Your task to perform on an android device: Open Android settings Image 0: 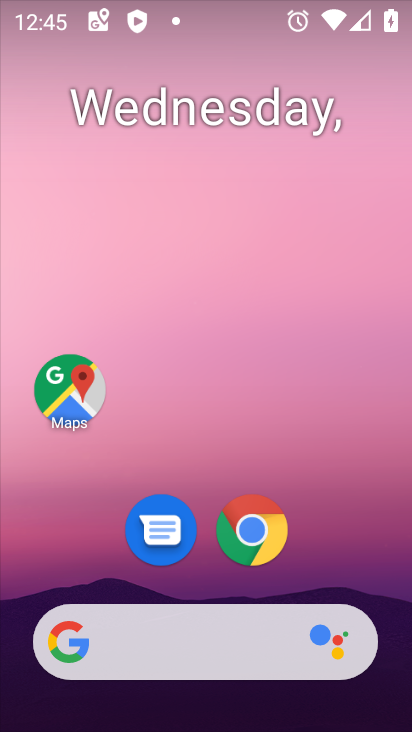
Step 0: drag from (239, 593) to (273, 149)
Your task to perform on an android device: Open Android settings Image 1: 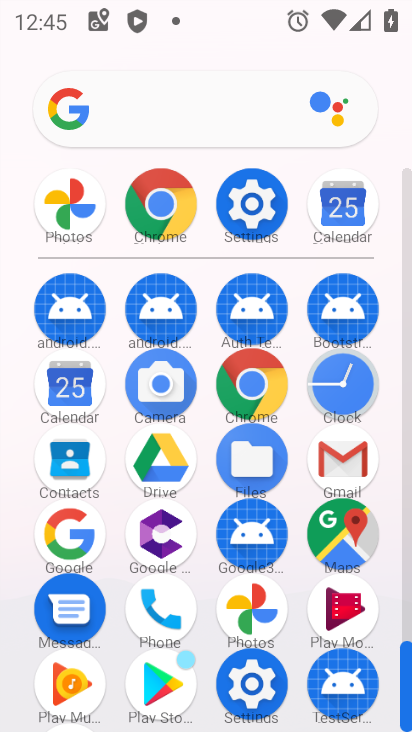
Step 1: click (244, 207)
Your task to perform on an android device: Open Android settings Image 2: 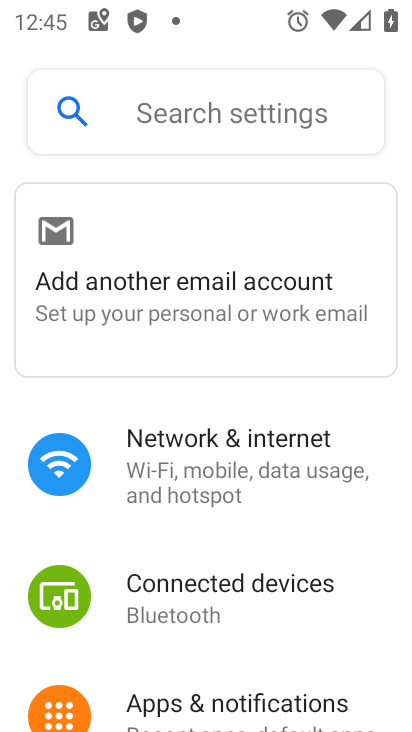
Step 2: drag from (236, 609) to (215, 166)
Your task to perform on an android device: Open Android settings Image 3: 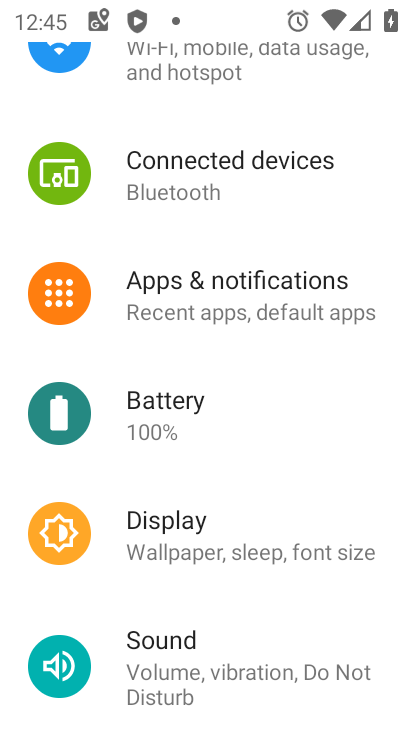
Step 3: drag from (217, 651) to (243, 205)
Your task to perform on an android device: Open Android settings Image 4: 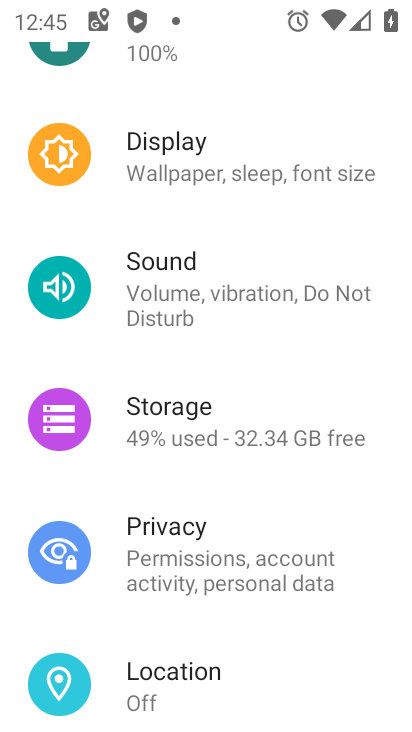
Step 4: drag from (220, 667) to (236, 186)
Your task to perform on an android device: Open Android settings Image 5: 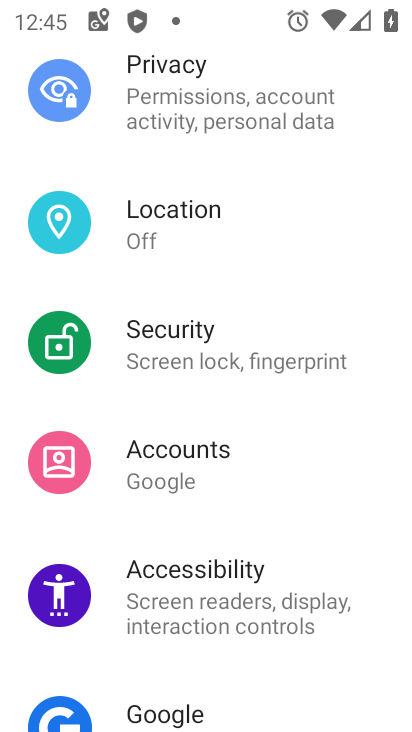
Step 5: drag from (199, 598) to (284, 153)
Your task to perform on an android device: Open Android settings Image 6: 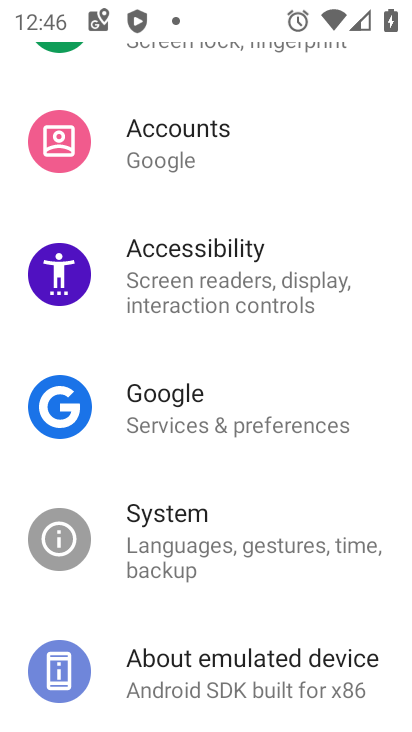
Step 6: drag from (208, 638) to (287, 212)
Your task to perform on an android device: Open Android settings Image 7: 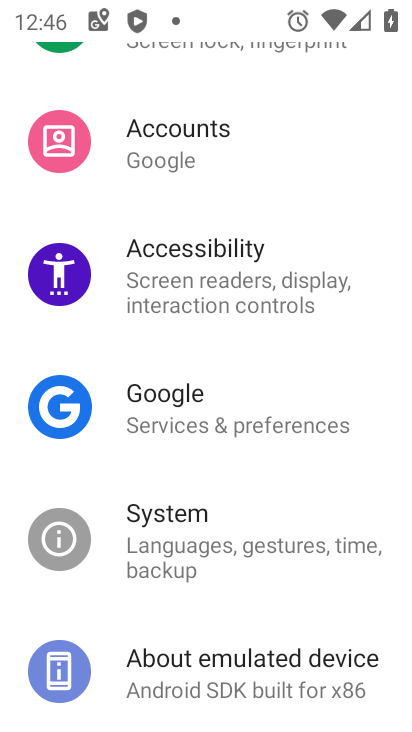
Step 7: click (243, 669)
Your task to perform on an android device: Open Android settings Image 8: 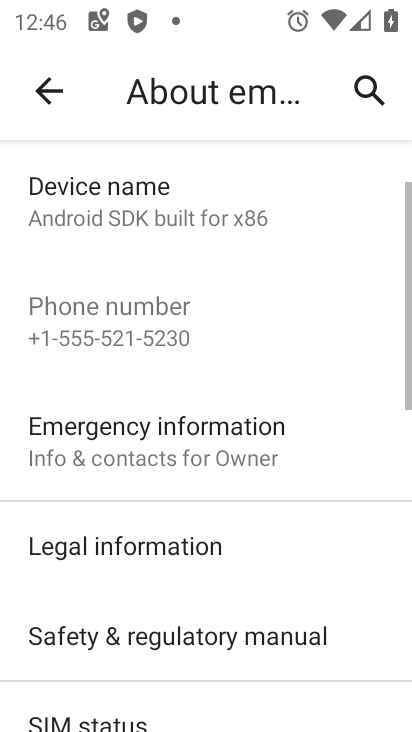
Step 8: task complete